Your task to perform on an android device: check out phone information Image 0: 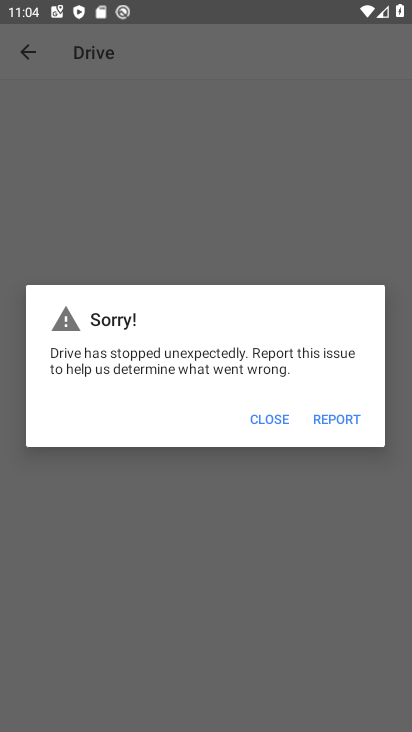
Step 0: press home button
Your task to perform on an android device: check out phone information Image 1: 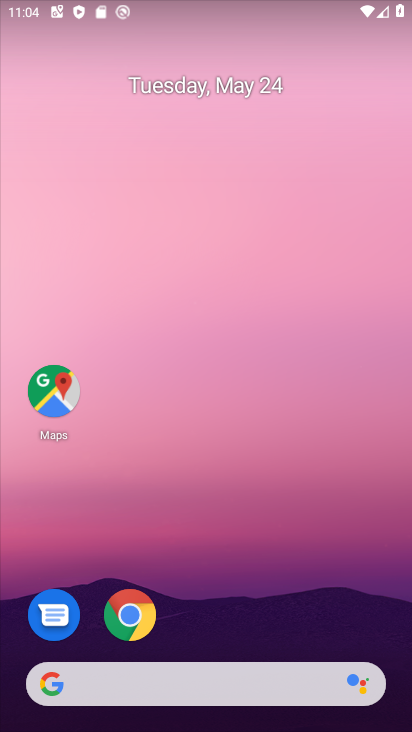
Step 1: drag from (274, 552) to (290, 108)
Your task to perform on an android device: check out phone information Image 2: 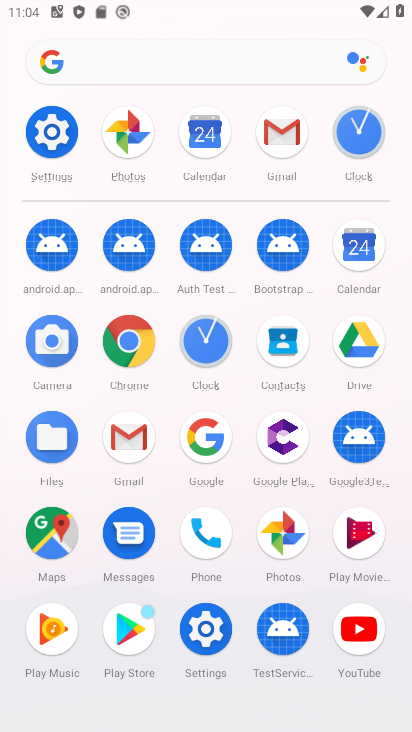
Step 2: click (31, 137)
Your task to perform on an android device: check out phone information Image 3: 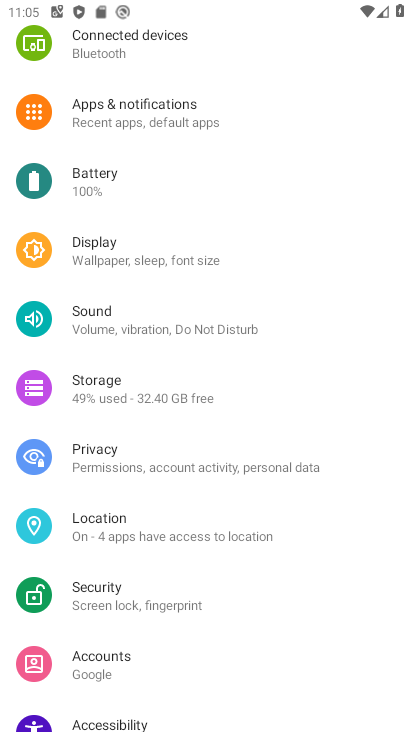
Step 3: click (51, 124)
Your task to perform on an android device: check out phone information Image 4: 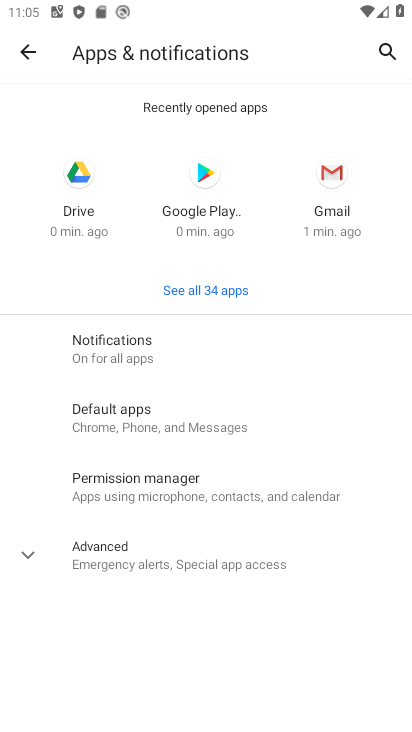
Step 4: press back button
Your task to perform on an android device: check out phone information Image 5: 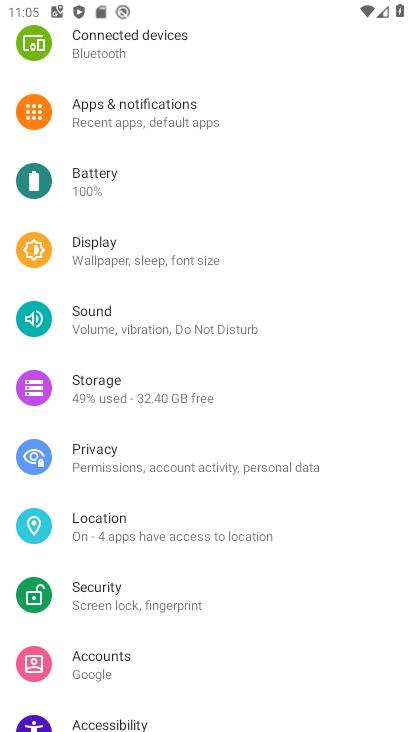
Step 5: drag from (226, 237) to (201, 600)
Your task to perform on an android device: check out phone information Image 6: 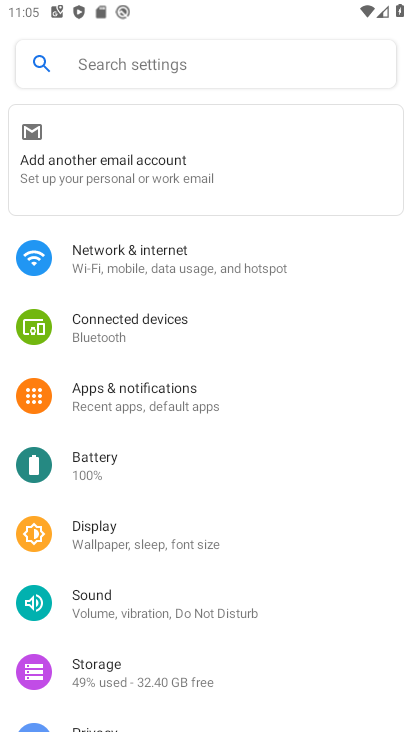
Step 6: drag from (237, 631) to (266, 155)
Your task to perform on an android device: check out phone information Image 7: 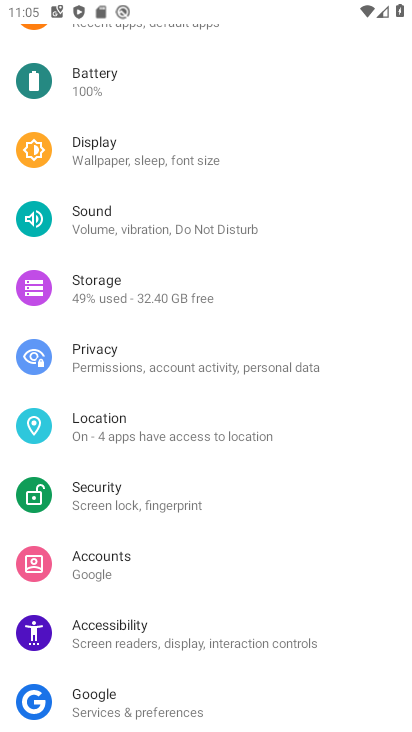
Step 7: drag from (235, 610) to (306, 105)
Your task to perform on an android device: check out phone information Image 8: 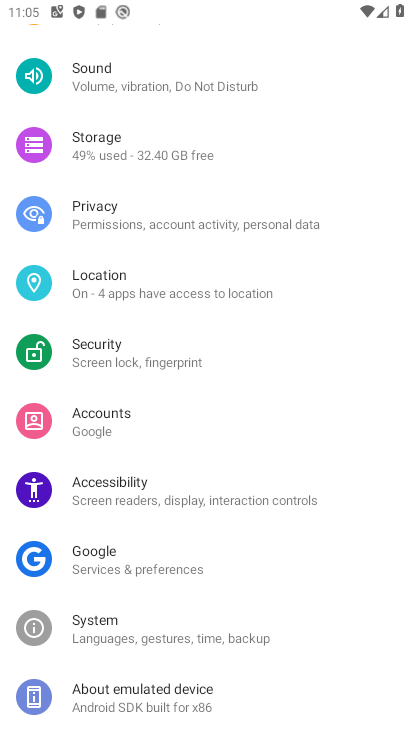
Step 8: drag from (209, 148) to (199, 613)
Your task to perform on an android device: check out phone information Image 9: 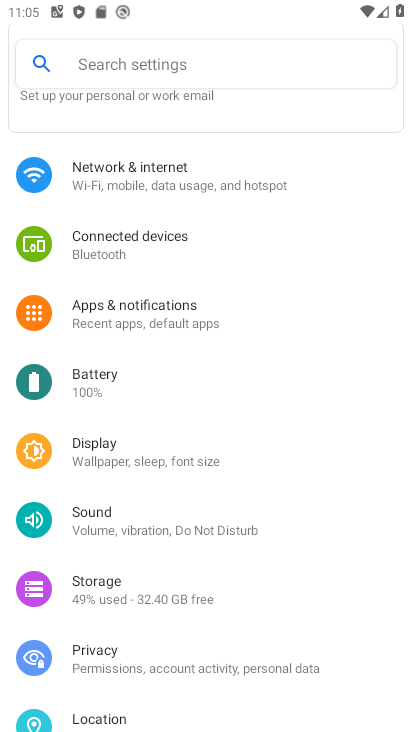
Step 9: drag from (256, 184) to (219, 607)
Your task to perform on an android device: check out phone information Image 10: 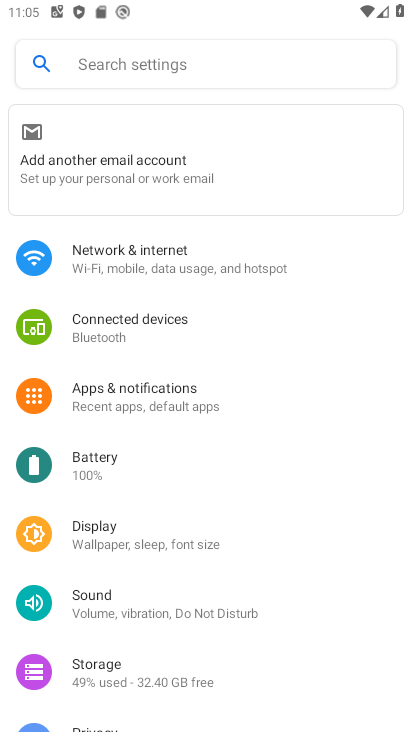
Step 10: press home button
Your task to perform on an android device: check out phone information Image 11: 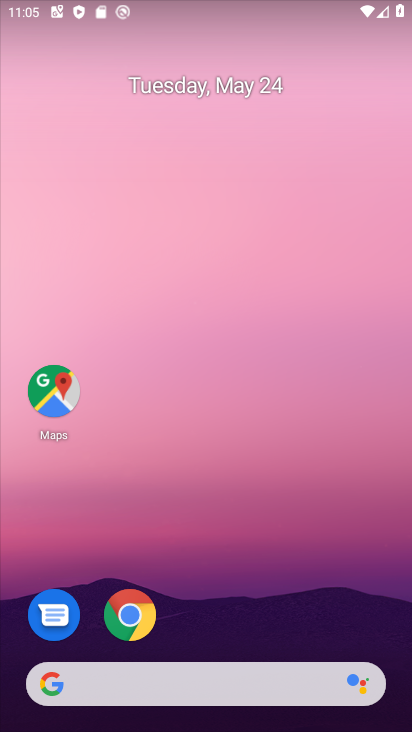
Step 11: drag from (239, 579) to (324, 80)
Your task to perform on an android device: check out phone information Image 12: 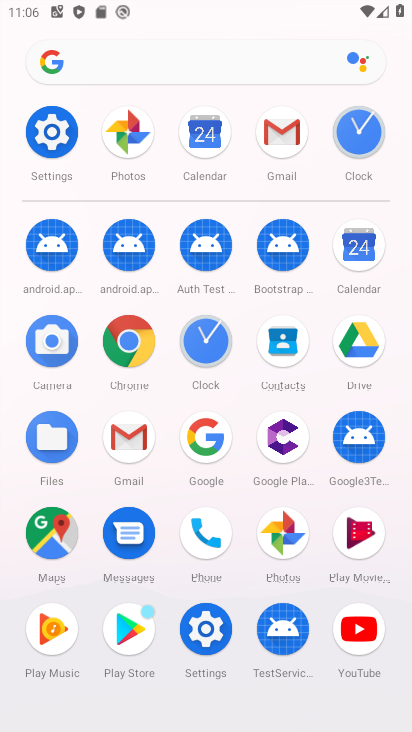
Step 12: click (44, 135)
Your task to perform on an android device: check out phone information Image 13: 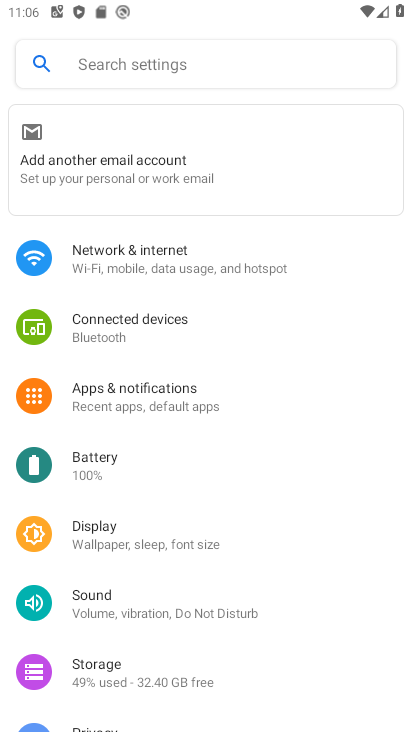
Step 13: drag from (166, 567) to (211, 120)
Your task to perform on an android device: check out phone information Image 14: 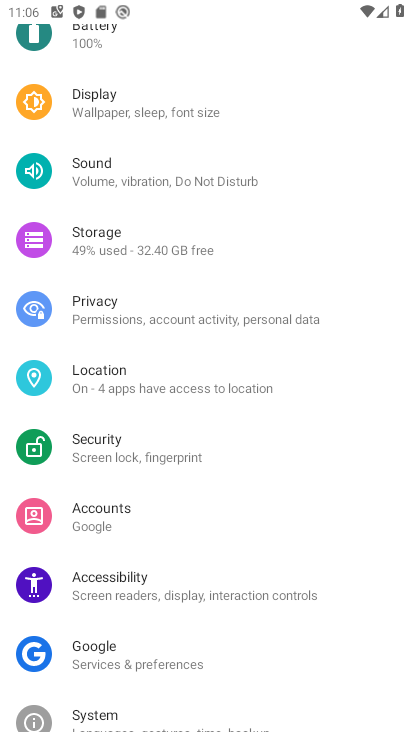
Step 14: drag from (153, 692) to (319, 115)
Your task to perform on an android device: check out phone information Image 15: 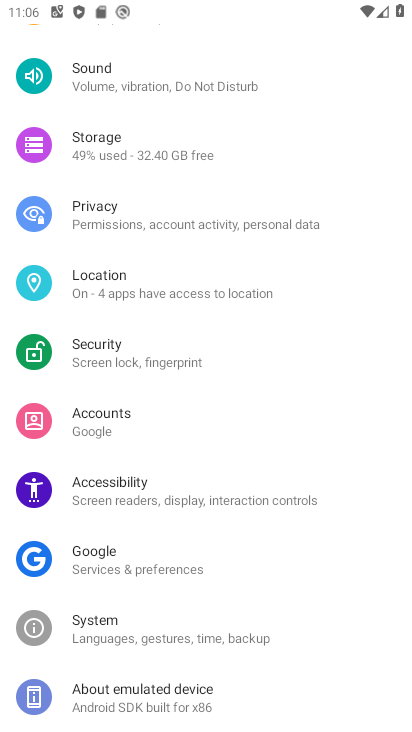
Step 15: click (133, 694)
Your task to perform on an android device: check out phone information Image 16: 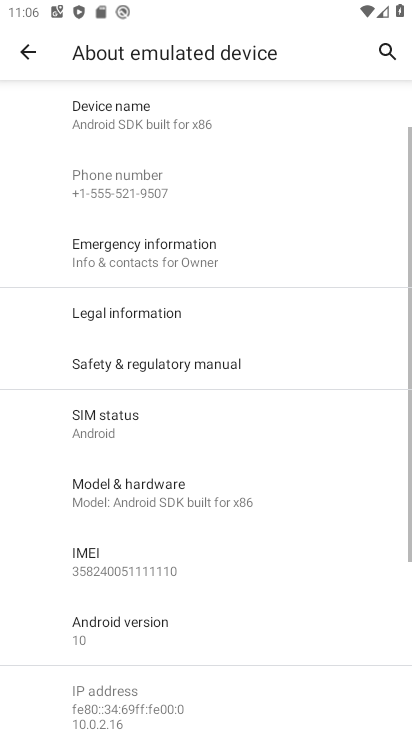
Step 16: task complete